Your task to perform on an android device: change the clock display to analog Image 0: 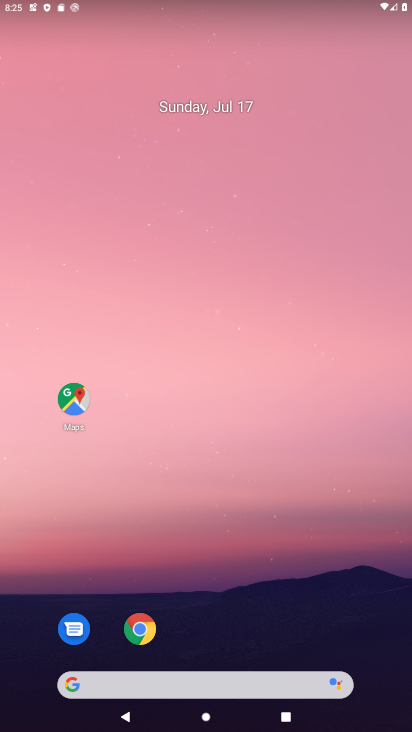
Step 0: drag from (240, 730) to (241, 76)
Your task to perform on an android device: change the clock display to analog Image 1: 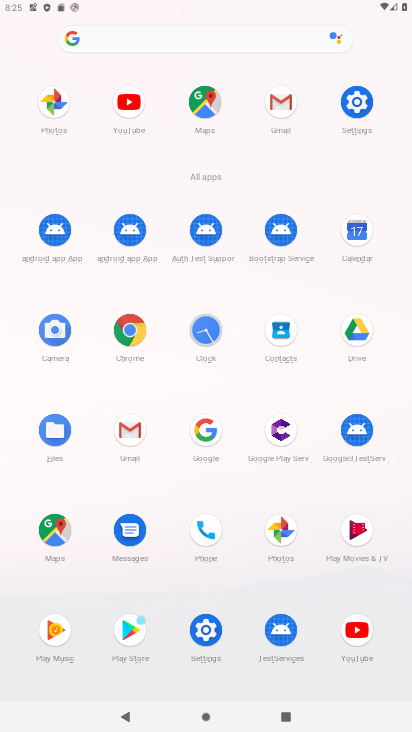
Step 1: click (203, 333)
Your task to perform on an android device: change the clock display to analog Image 2: 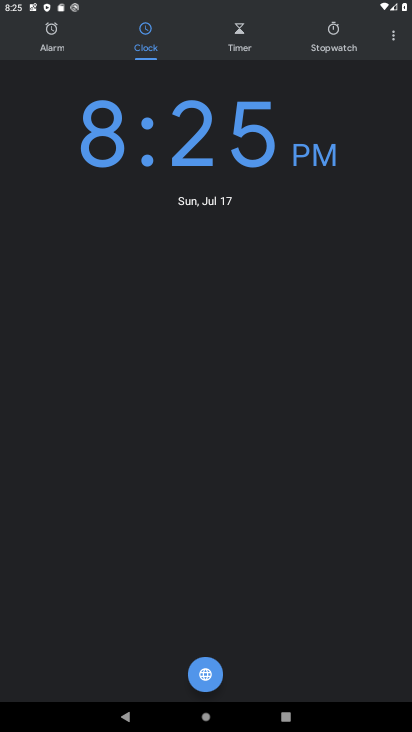
Step 2: click (393, 44)
Your task to perform on an android device: change the clock display to analog Image 3: 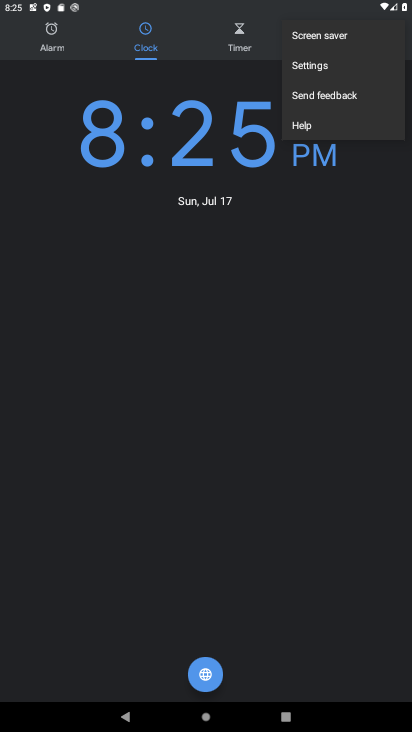
Step 3: click (308, 63)
Your task to perform on an android device: change the clock display to analog Image 4: 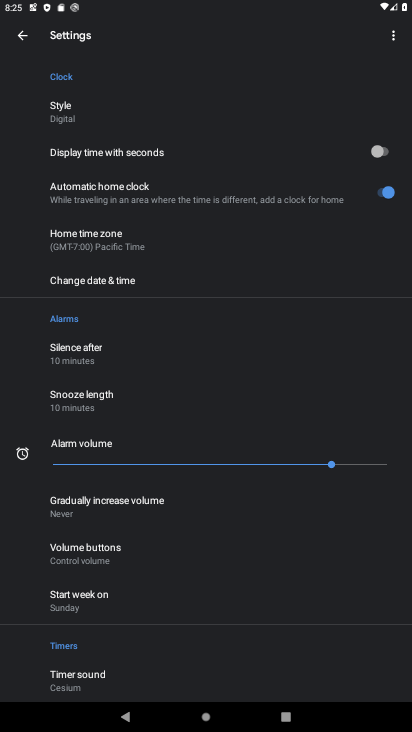
Step 4: click (62, 107)
Your task to perform on an android device: change the clock display to analog Image 5: 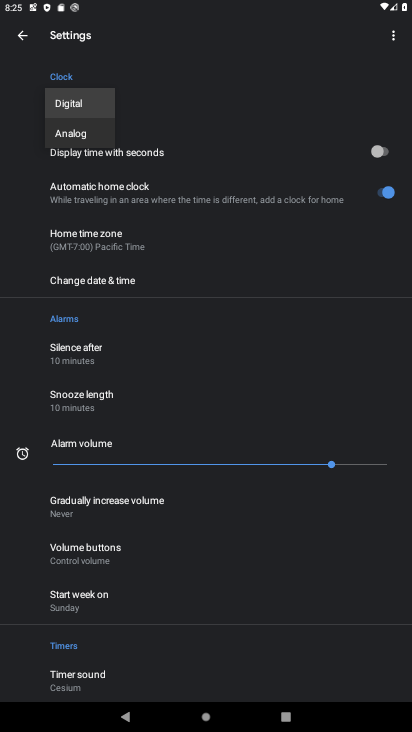
Step 5: click (96, 139)
Your task to perform on an android device: change the clock display to analog Image 6: 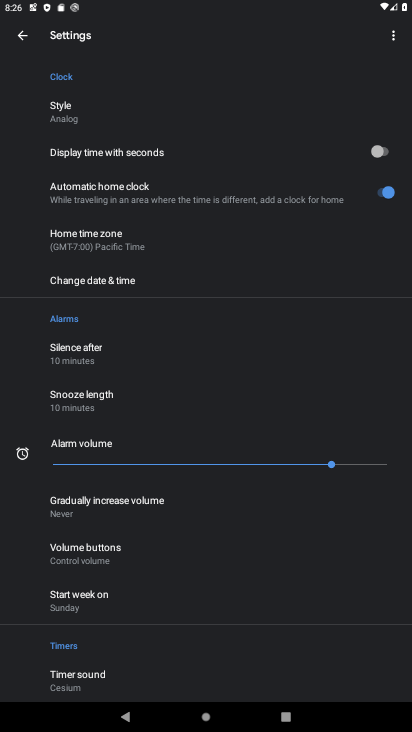
Step 6: task complete